Your task to perform on an android device: check google app version Image 0: 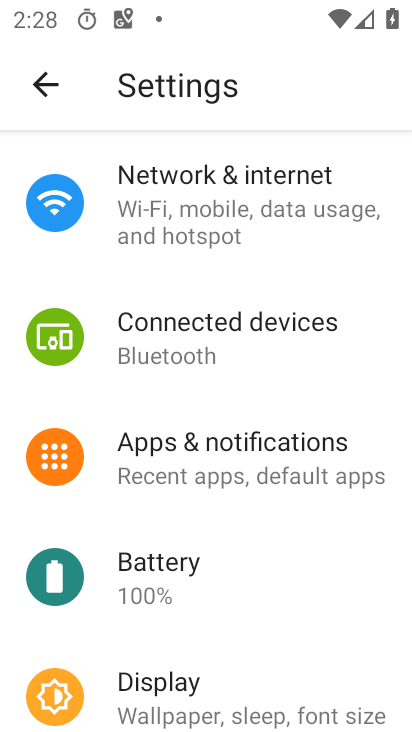
Step 0: press home button
Your task to perform on an android device: check google app version Image 1: 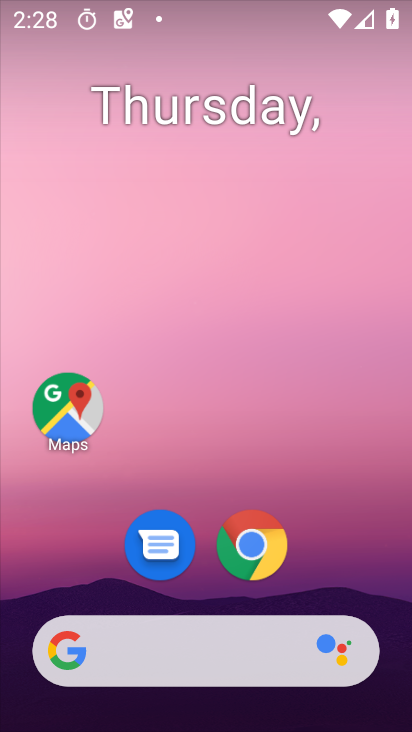
Step 1: drag from (222, 725) to (213, 4)
Your task to perform on an android device: check google app version Image 2: 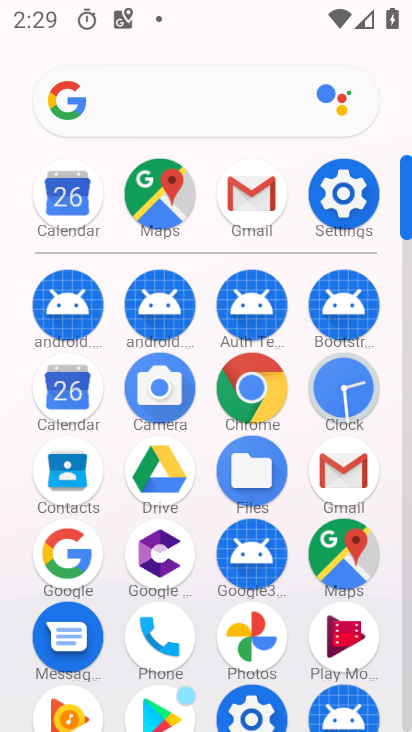
Step 2: click (64, 558)
Your task to perform on an android device: check google app version Image 3: 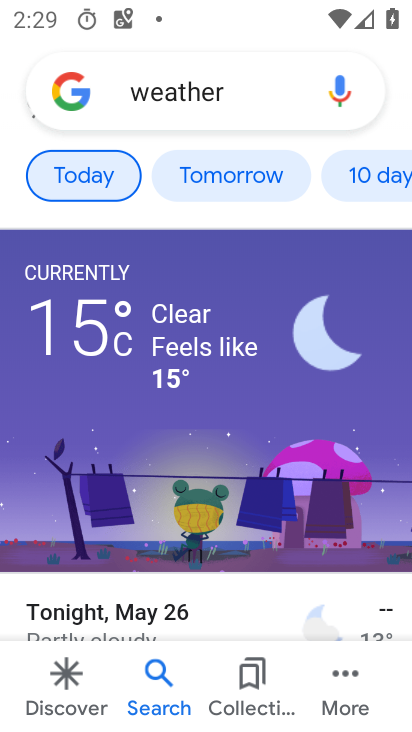
Step 3: click (347, 669)
Your task to perform on an android device: check google app version Image 4: 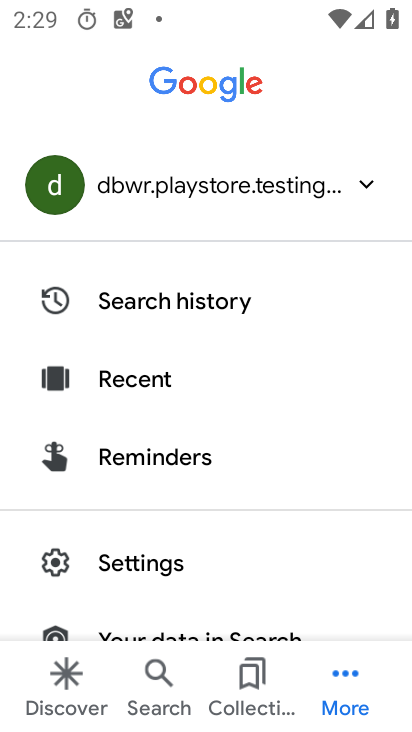
Step 4: drag from (197, 581) to (221, 151)
Your task to perform on an android device: check google app version Image 5: 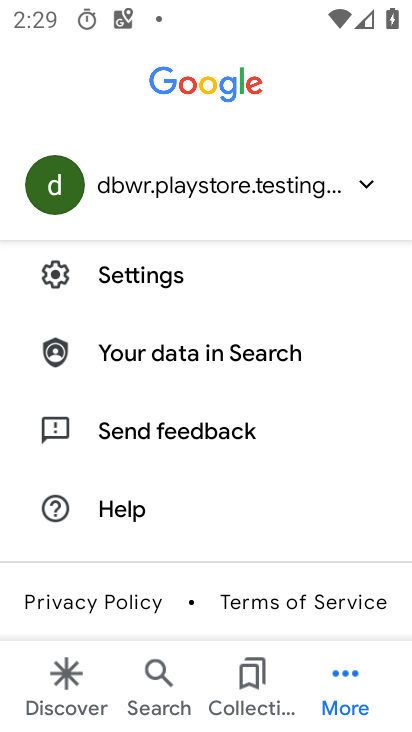
Step 5: click (142, 271)
Your task to perform on an android device: check google app version Image 6: 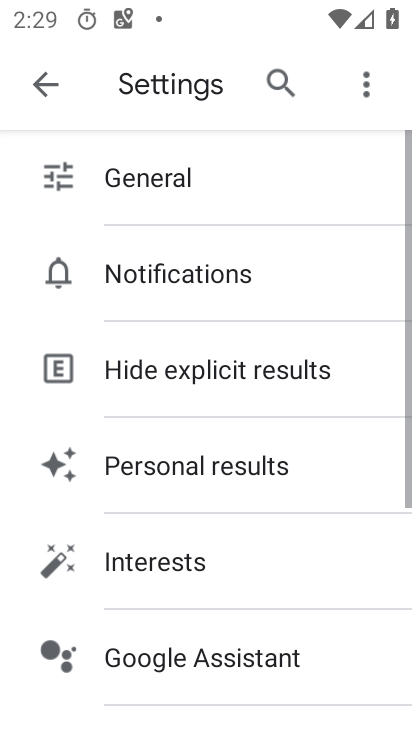
Step 6: drag from (182, 647) to (188, 209)
Your task to perform on an android device: check google app version Image 7: 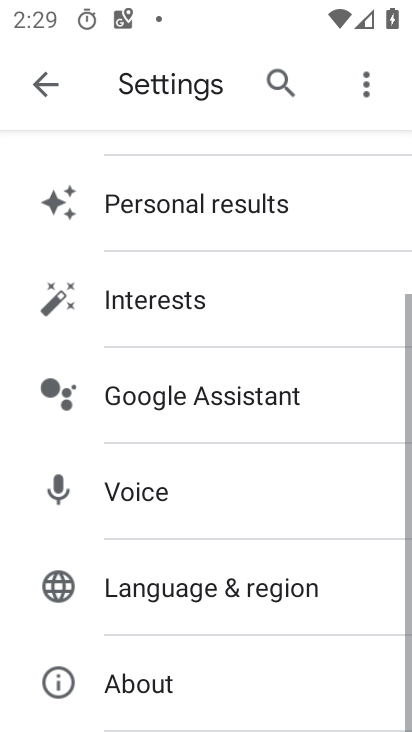
Step 7: click (126, 684)
Your task to perform on an android device: check google app version Image 8: 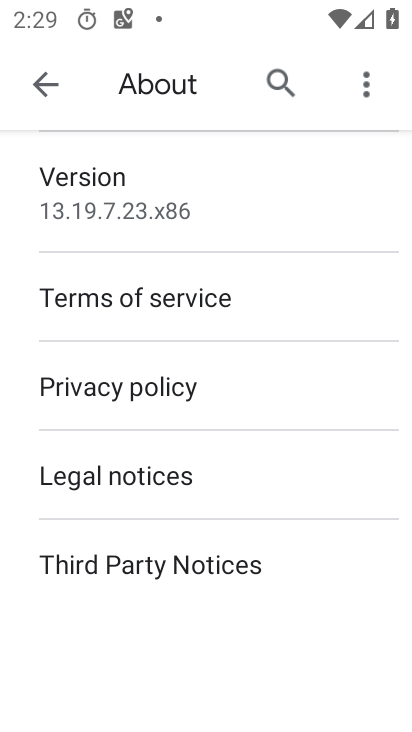
Step 8: click (120, 193)
Your task to perform on an android device: check google app version Image 9: 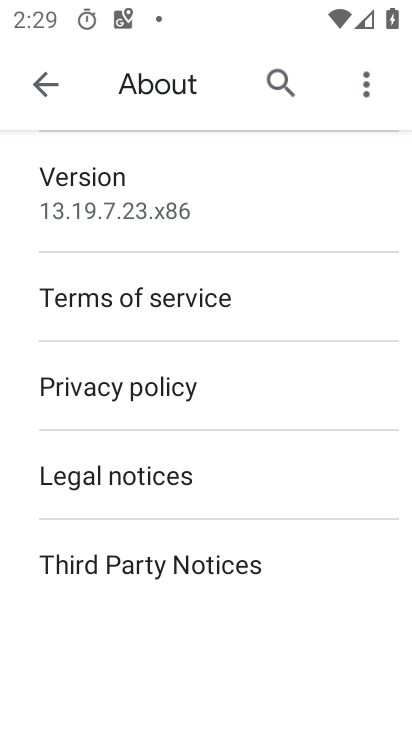
Step 9: task complete